Your task to perform on an android device: Set the phone to "Do not disturb". Image 0: 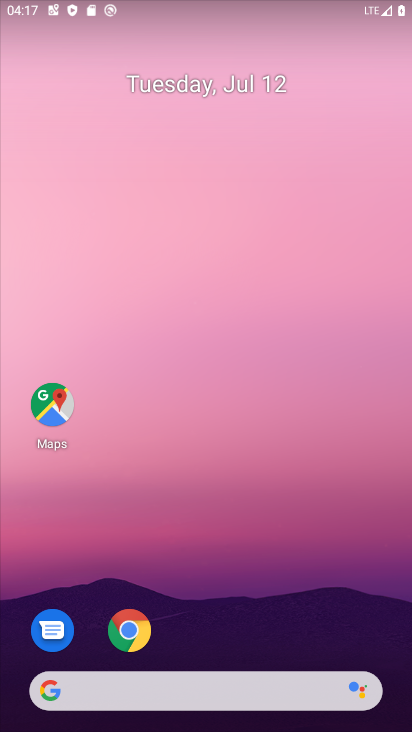
Step 0: drag from (224, 577) to (330, 3)
Your task to perform on an android device: Set the phone to "Do not disturb". Image 1: 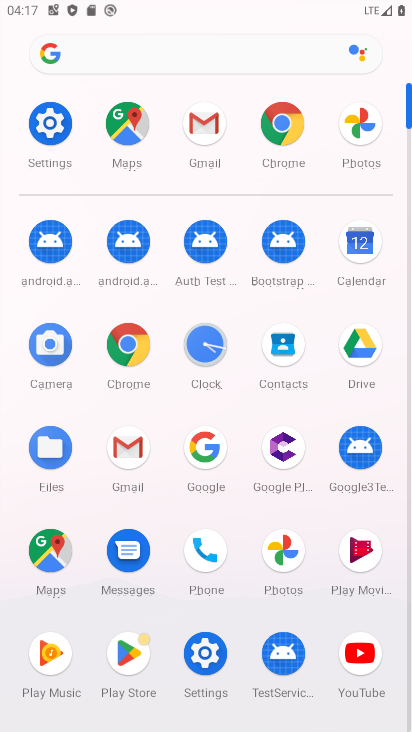
Step 1: click (52, 125)
Your task to perform on an android device: Set the phone to "Do not disturb". Image 2: 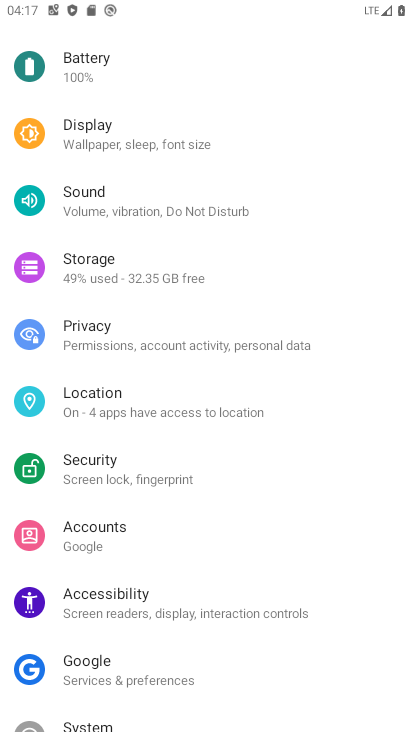
Step 2: click (124, 144)
Your task to perform on an android device: Set the phone to "Do not disturb". Image 3: 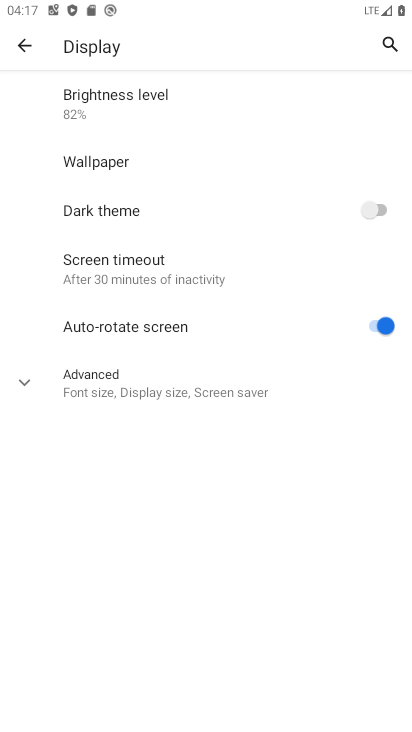
Step 3: press back button
Your task to perform on an android device: Set the phone to "Do not disturb". Image 4: 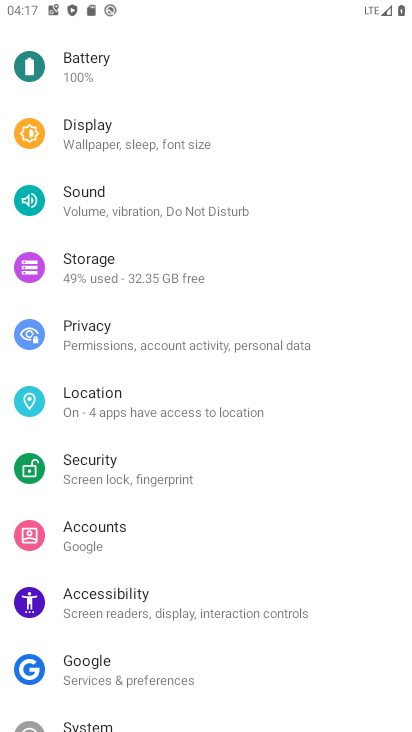
Step 4: click (111, 198)
Your task to perform on an android device: Set the phone to "Do not disturb". Image 5: 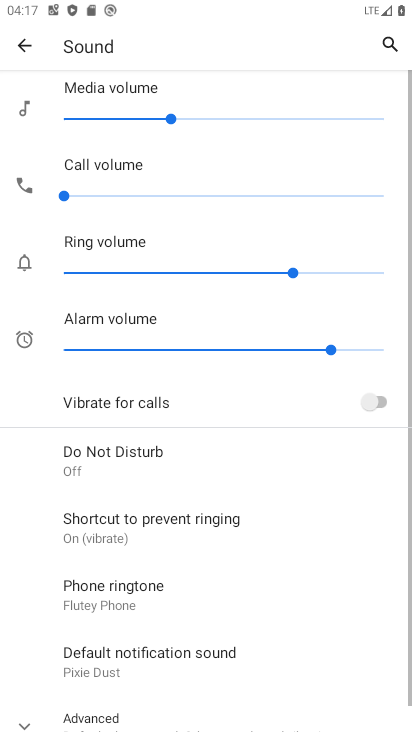
Step 5: drag from (233, 665) to (221, 6)
Your task to perform on an android device: Set the phone to "Do not disturb". Image 6: 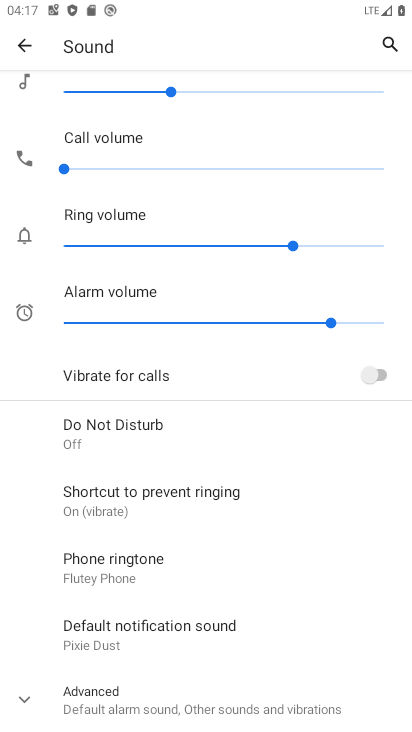
Step 6: click (149, 435)
Your task to perform on an android device: Set the phone to "Do not disturb". Image 7: 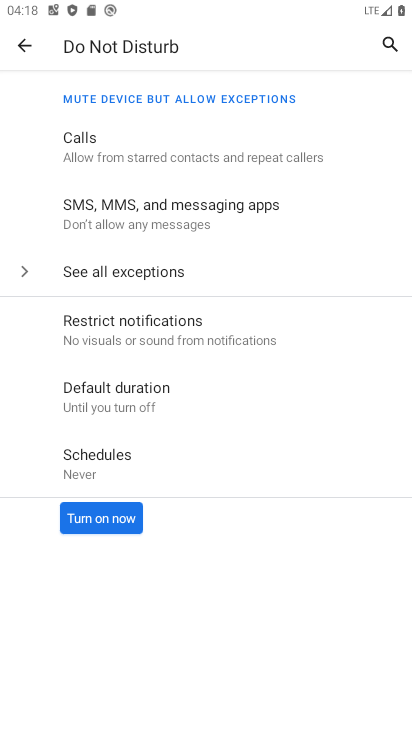
Step 7: click (95, 520)
Your task to perform on an android device: Set the phone to "Do not disturb". Image 8: 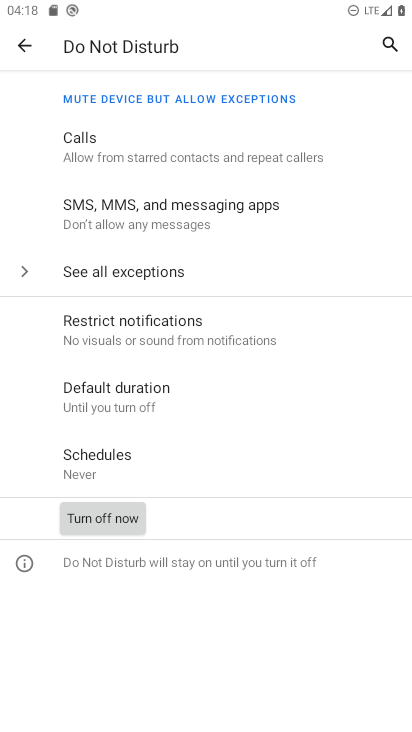
Step 8: task complete